Your task to perform on an android device: toggle notifications settings in the gmail app Image 0: 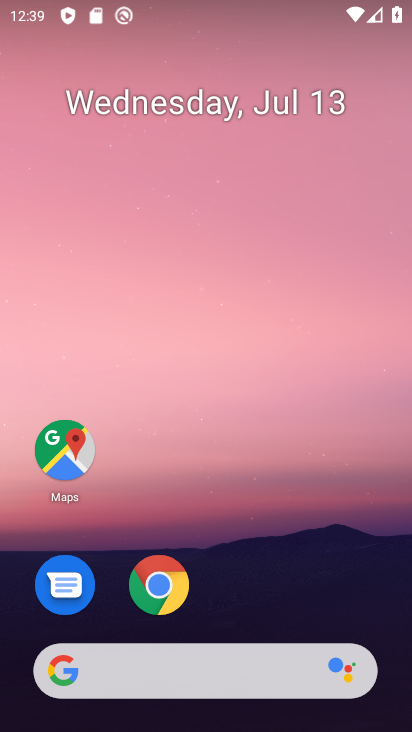
Step 0: drag from (203, 690) to (297, 178)
Your task to perform on an android device: toggle notifications settings in the gmail app Image 1: 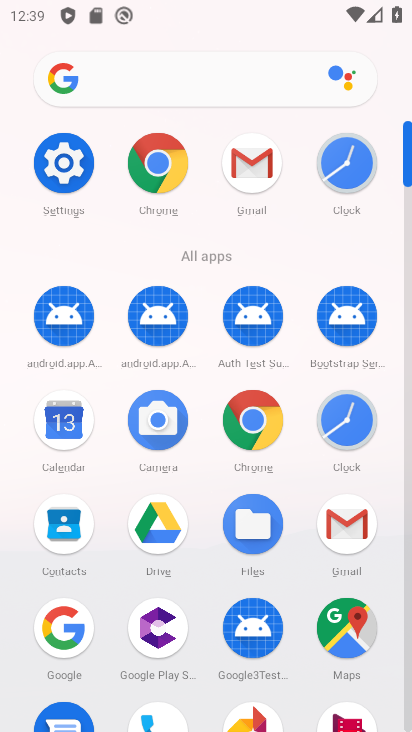
Step 1: click (262, 173)
Your task to perform on an android device: toggle notifications settings in the gmail app Image 2: 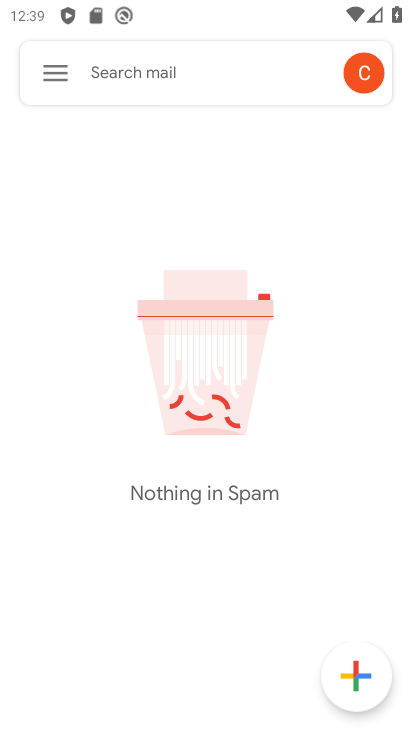
Step 2: click (52, 75)
Your task to perform on an android device: toggle notifications settings in the gmail app Image 3: 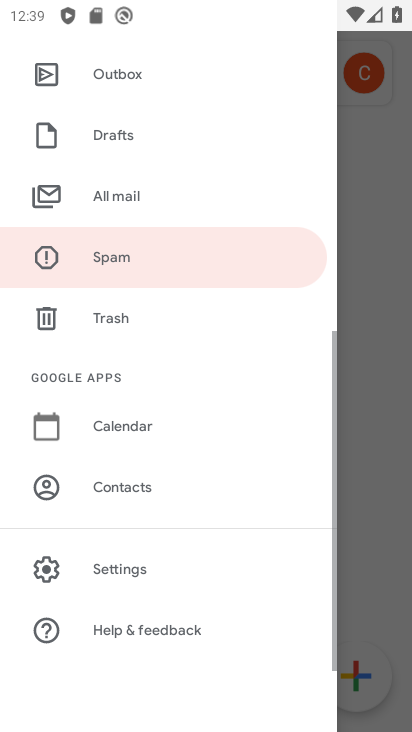
Step 3: drag from (159, 639) to (206, 159)
Your task to perform on an android device: toggle notifications settings in the gmail app Image 4: 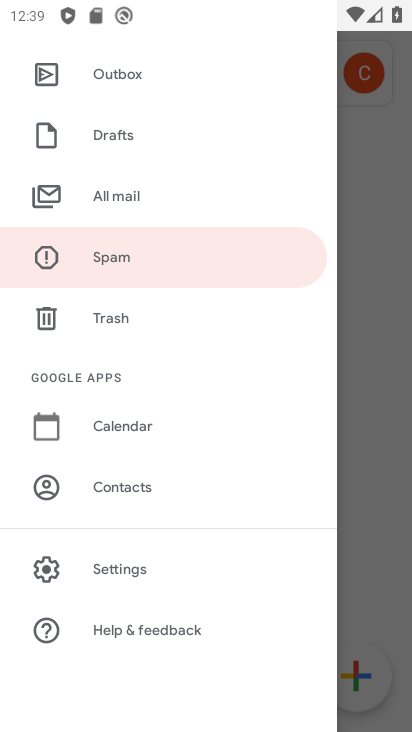
Step 4: click (127, 563)
Your task to perform on an android device: toggle notifications settings in the gmail app Image 5: 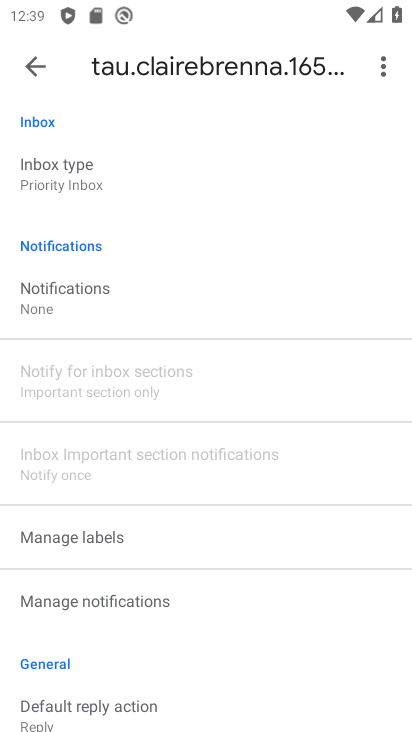
Step 5: click (59, 302)
Your task to perform on an android device: toggle notifications settings in the gmail app Image 6: 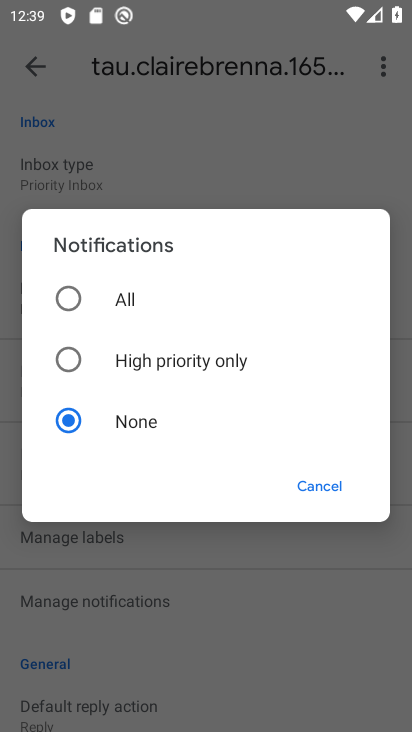
Step 6: click (64, 297)
Your task to perform on an android device: toggle notifications settings in the gmail app Image 7: 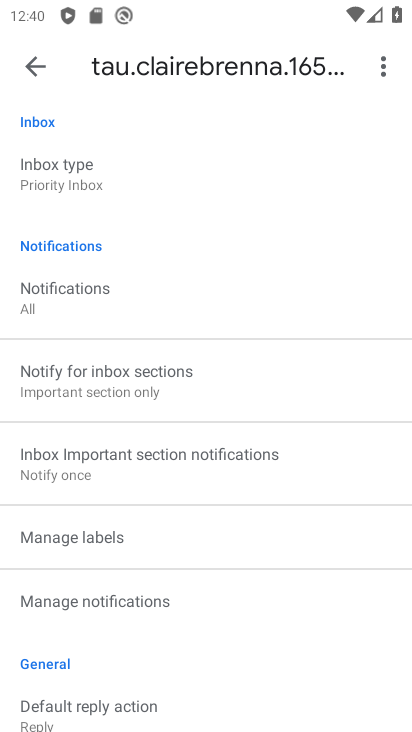
Step 7: click (85, 312)
Your task to perform on an android device: toggle notifications settings in the gmail app Image 8: 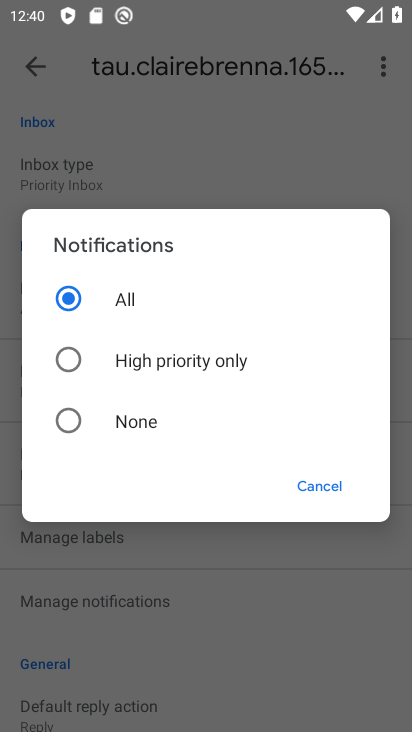
Step 8: click (68, 419)
Your task to perform on an android device: toggle notifications settings in the gmail app Image 9: 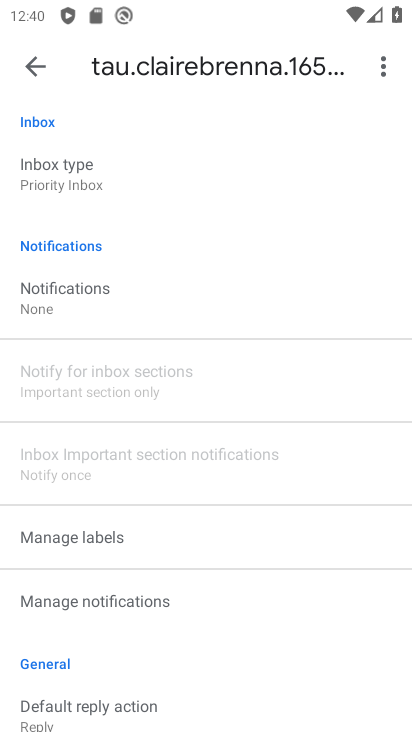
Step 9: task complete